Your task to perform on an android device: open app "LinkedIn" (install if not already installed), go to login, and select forgot password Image 0: 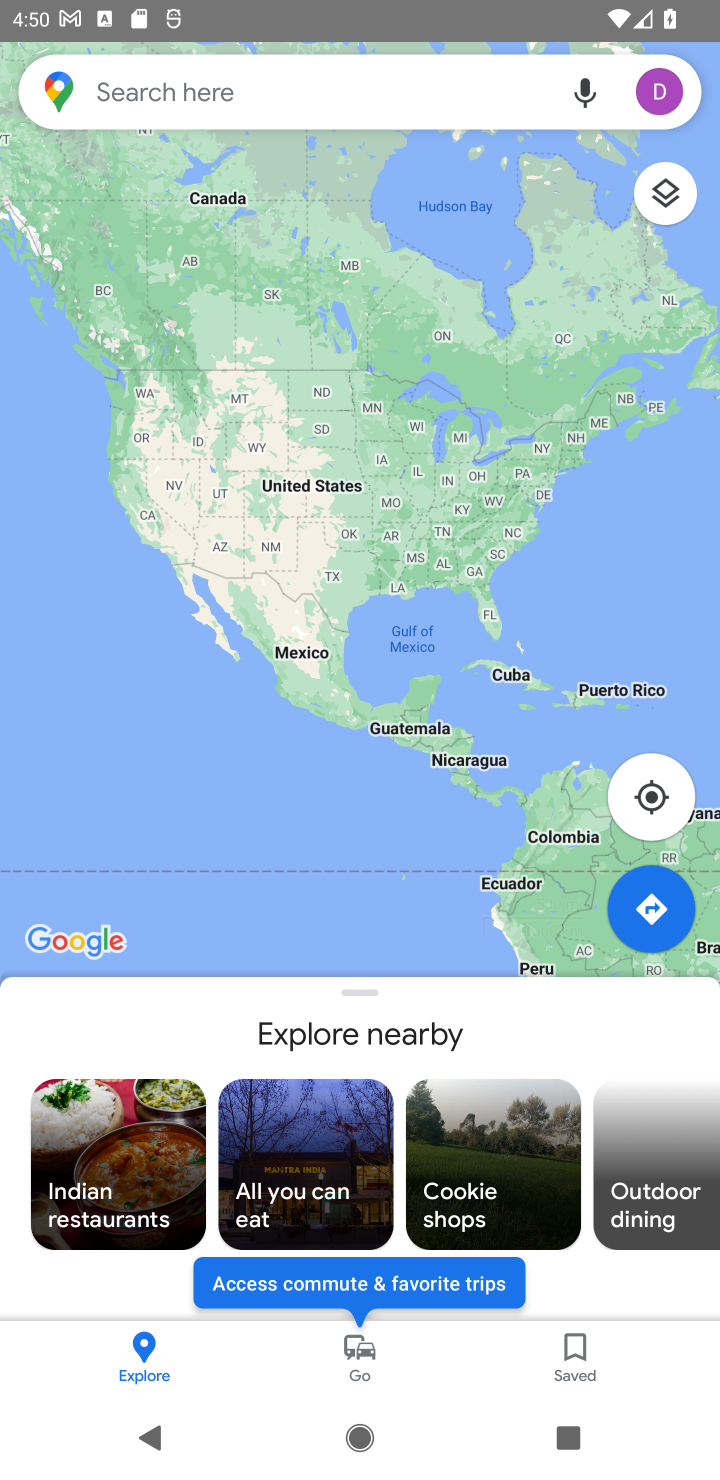
Step 0: press home button
Your task to perform on an android device: open app "LinkedIn" (install if not already installed), go to login, and select forgot password Image 1: 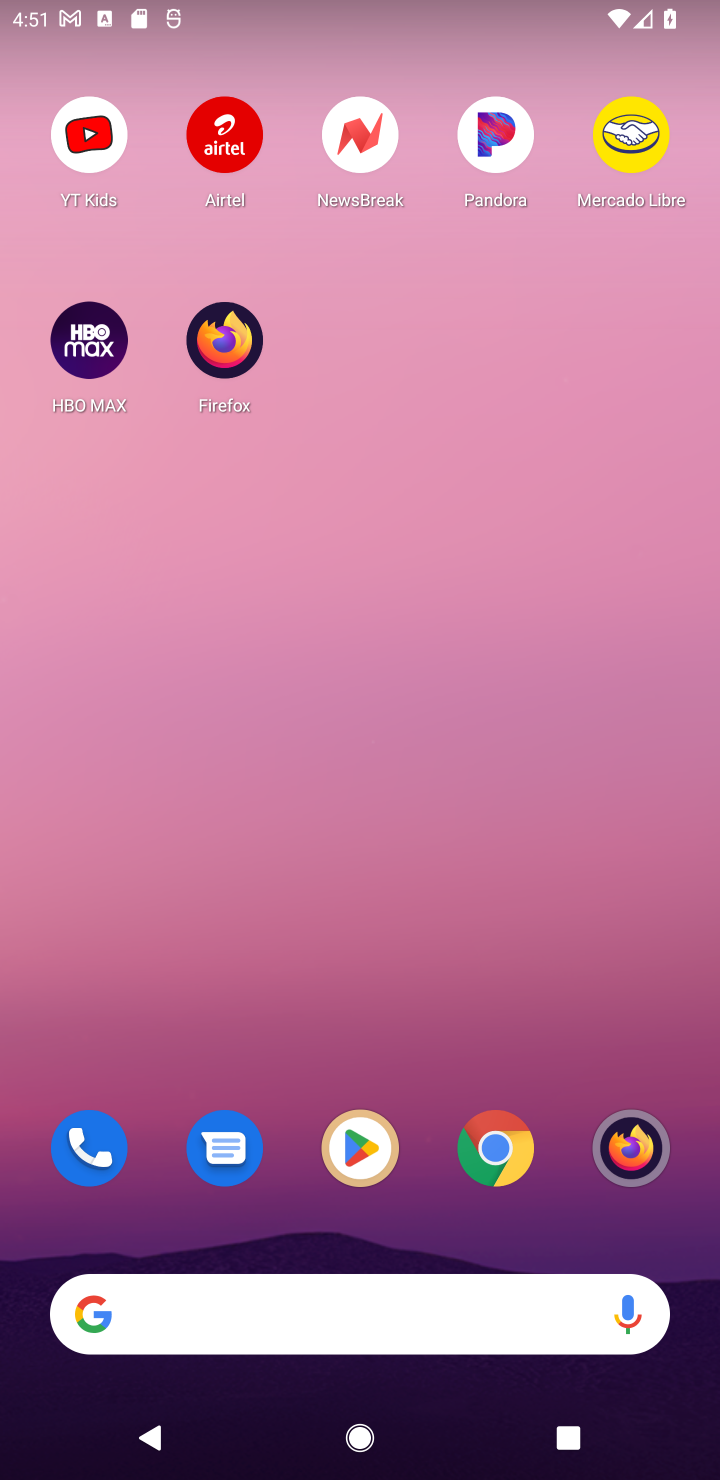
Step 1: click (361, 1149)
Your task to perform on an android device: open app "LinkedIn" (install if not already installed), go to login, and select forgot password Image 2: 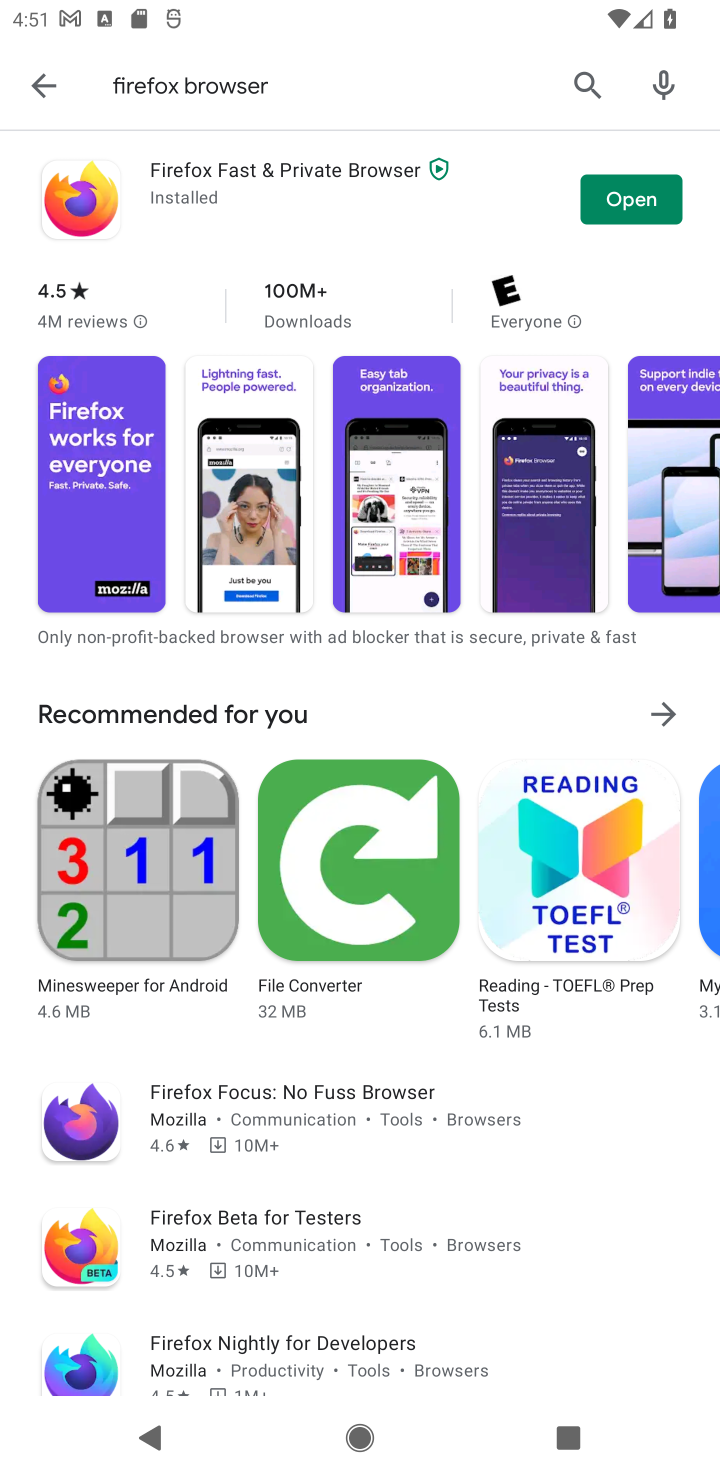
Step 2: click (590, 81)
Your task to perform on an android device: open app "LinkedIn" (install if not already installed), go to login, and select forgot password Image 3: 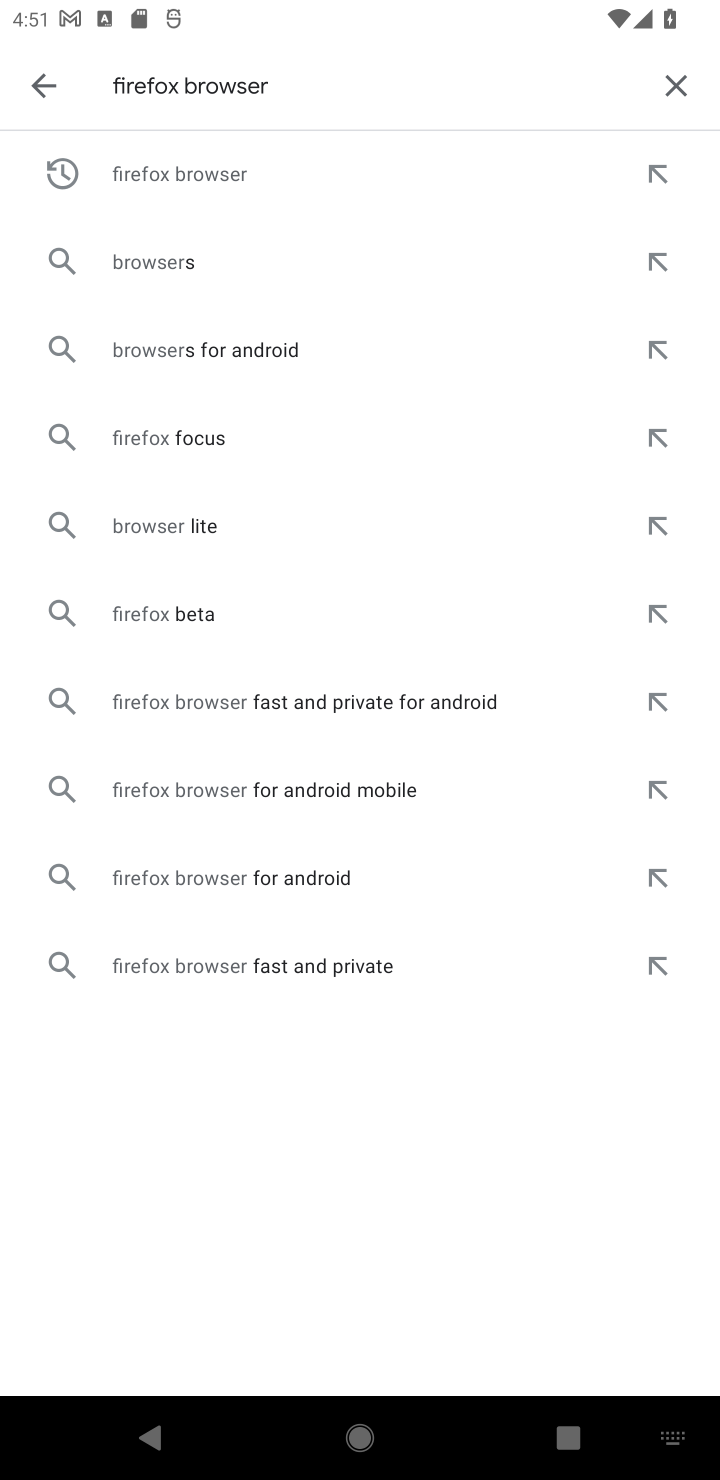
Step 3: click (672, 88)
Your task to perform on an android device: open app "LinkedIn" (install if not already installed), go to login, and select forgot password Image 4: 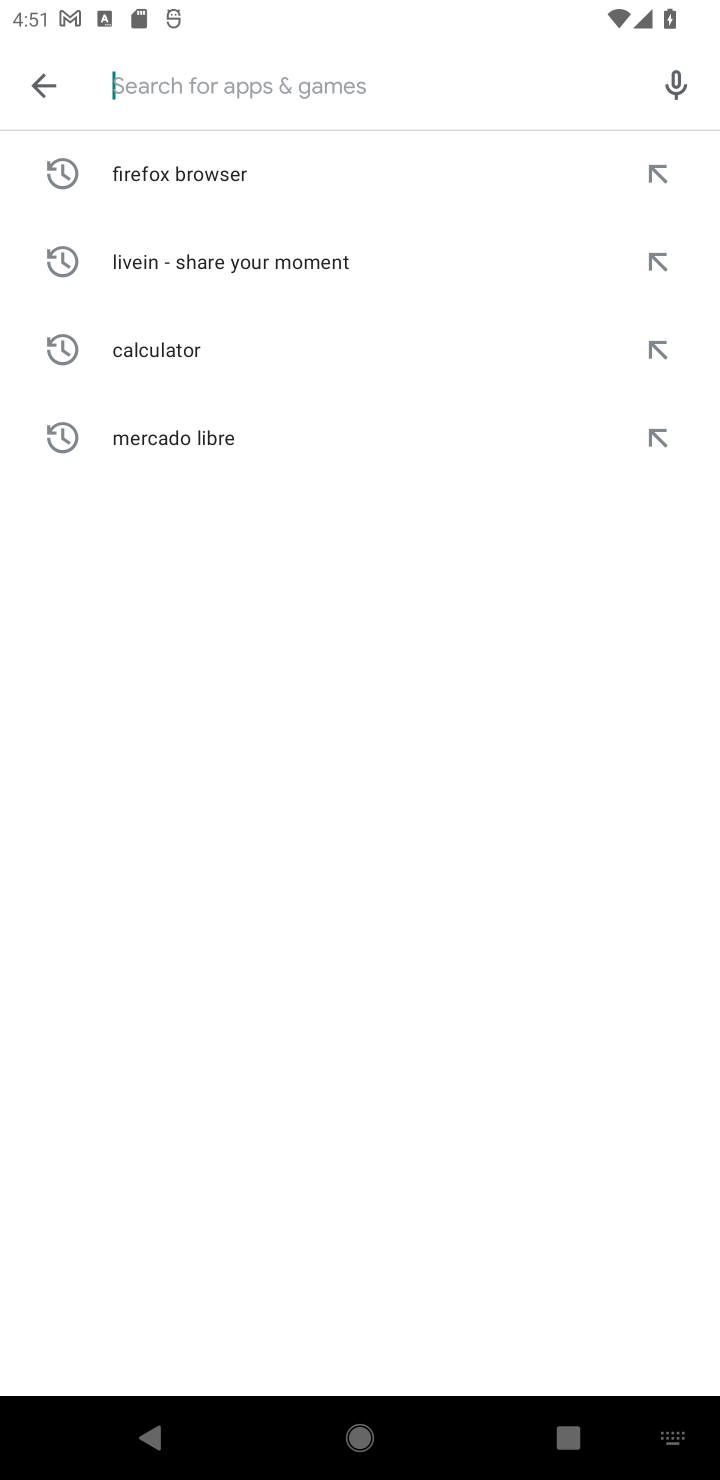
Step 4: type "LinkedIn"
Your task to perform on an android device: open app "LinkedIn" (install if not already installed), go to login, and select forgot password Image 5: 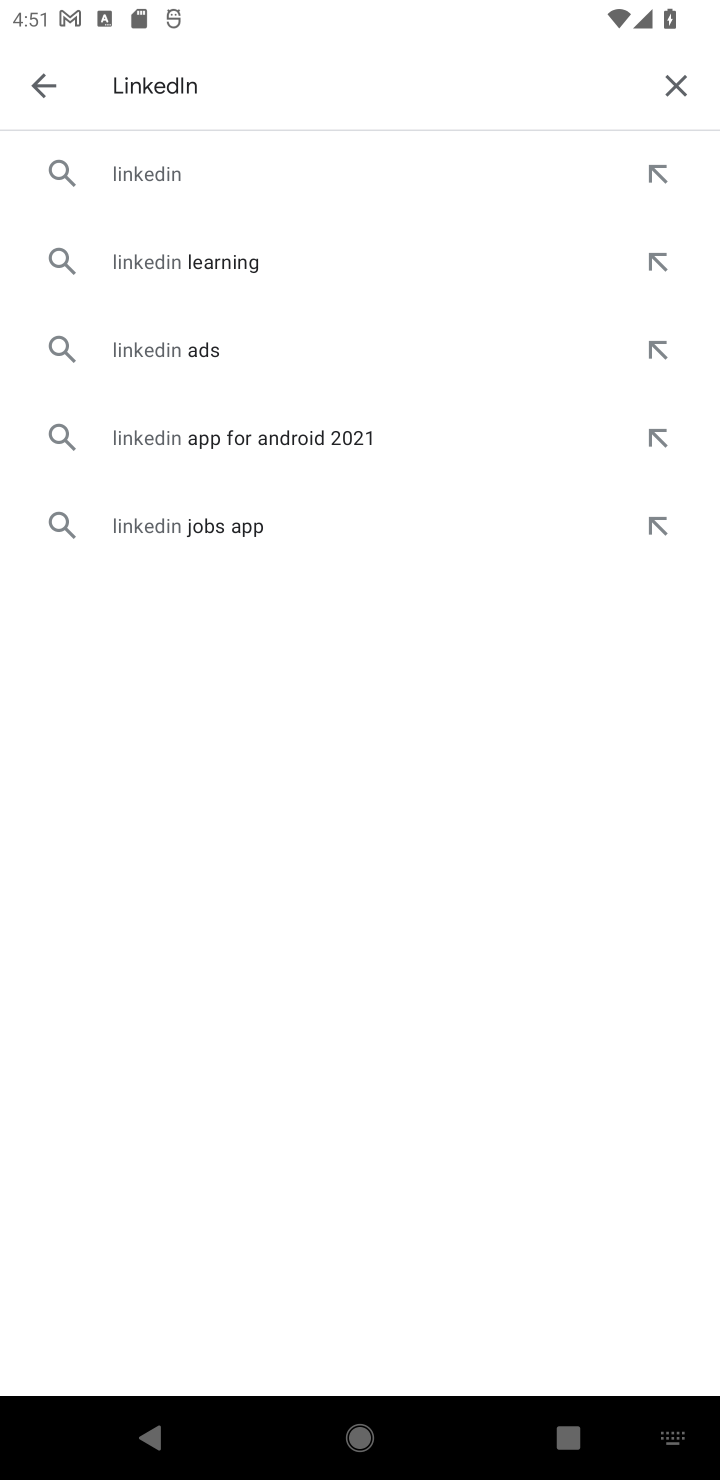
Step 5: click (163, 167)
Your task to perform on an android device: open app "LinkedIn" (install if not already installed), go to login, and select forgot password Image 6: 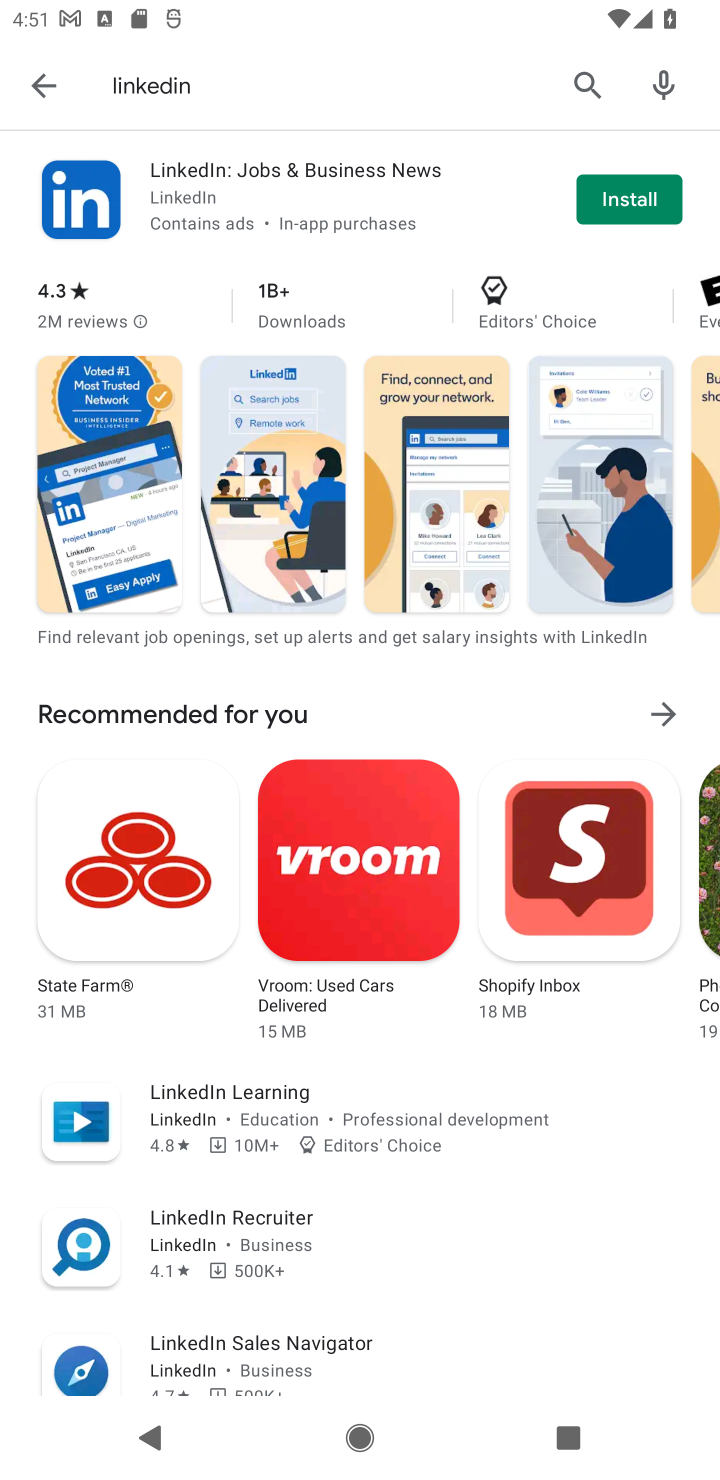
Step 6: click (630, 206)
Your task to perform on an android device: open app "LinkedIn" (install if not already installed), go to login, and select forgot password Image 7: 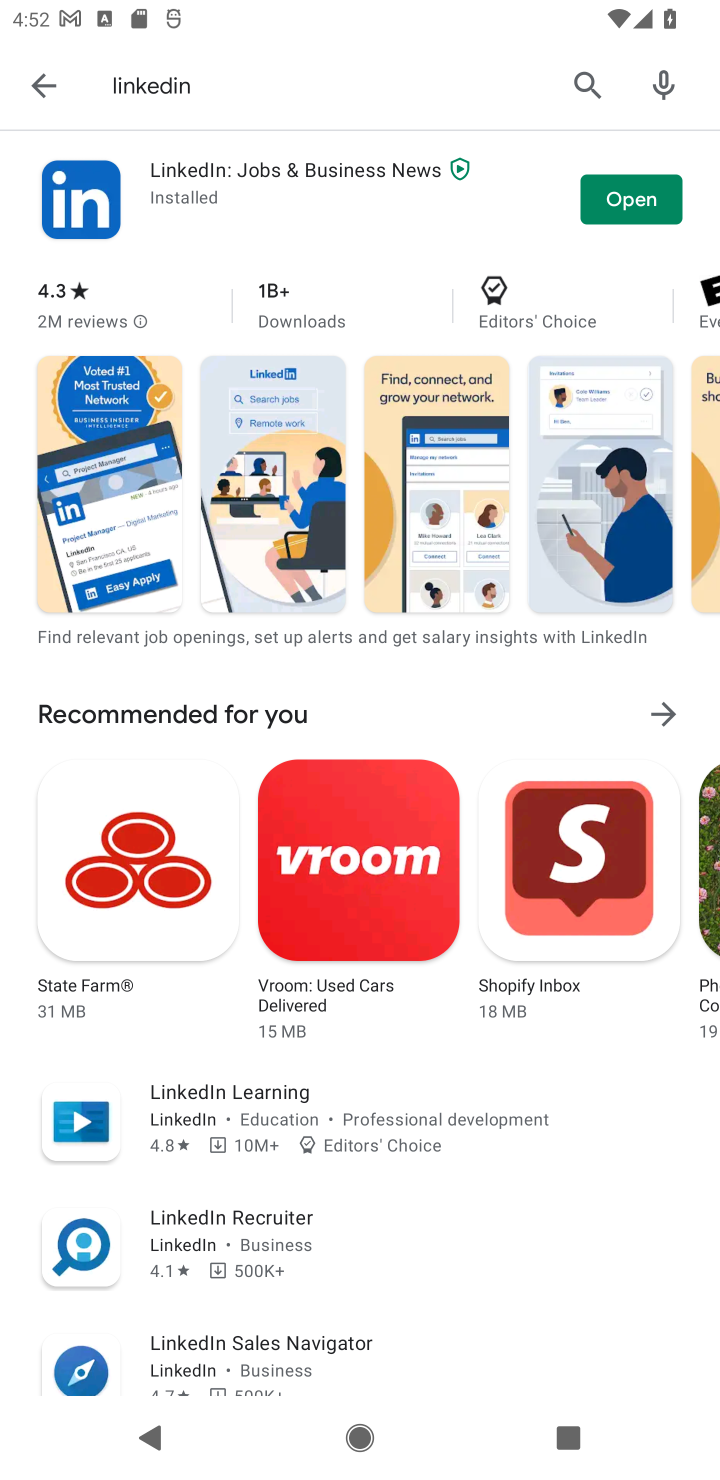
Step 7: click (630, 206)
Your task to perform on an android device: open app "LinkedIn" (install if not already installed), go to login, and select forgot password Image 8: 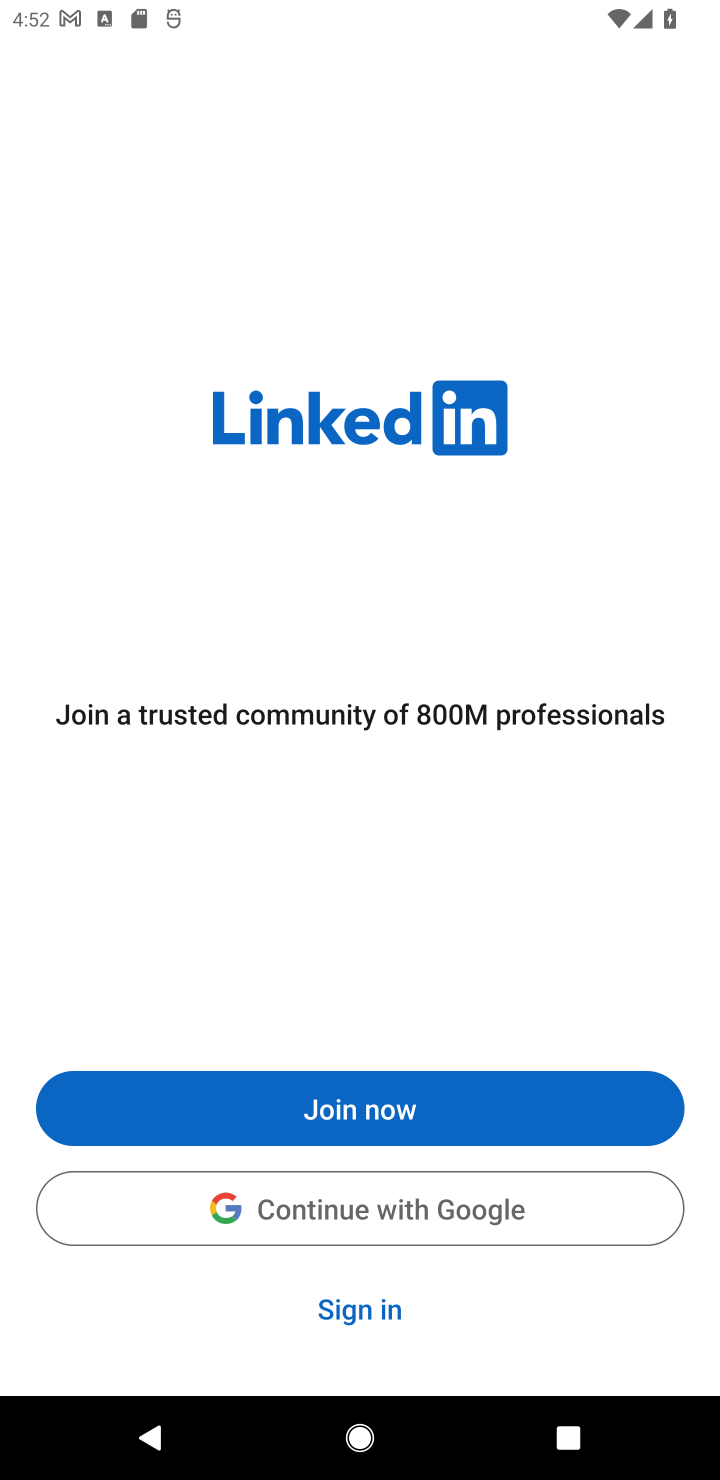
Step 8: click (345, 1304)
Your task to perform on an android device: open app "LinkedIn" (install if not already installed), go to login, and select forgot password Image 9: 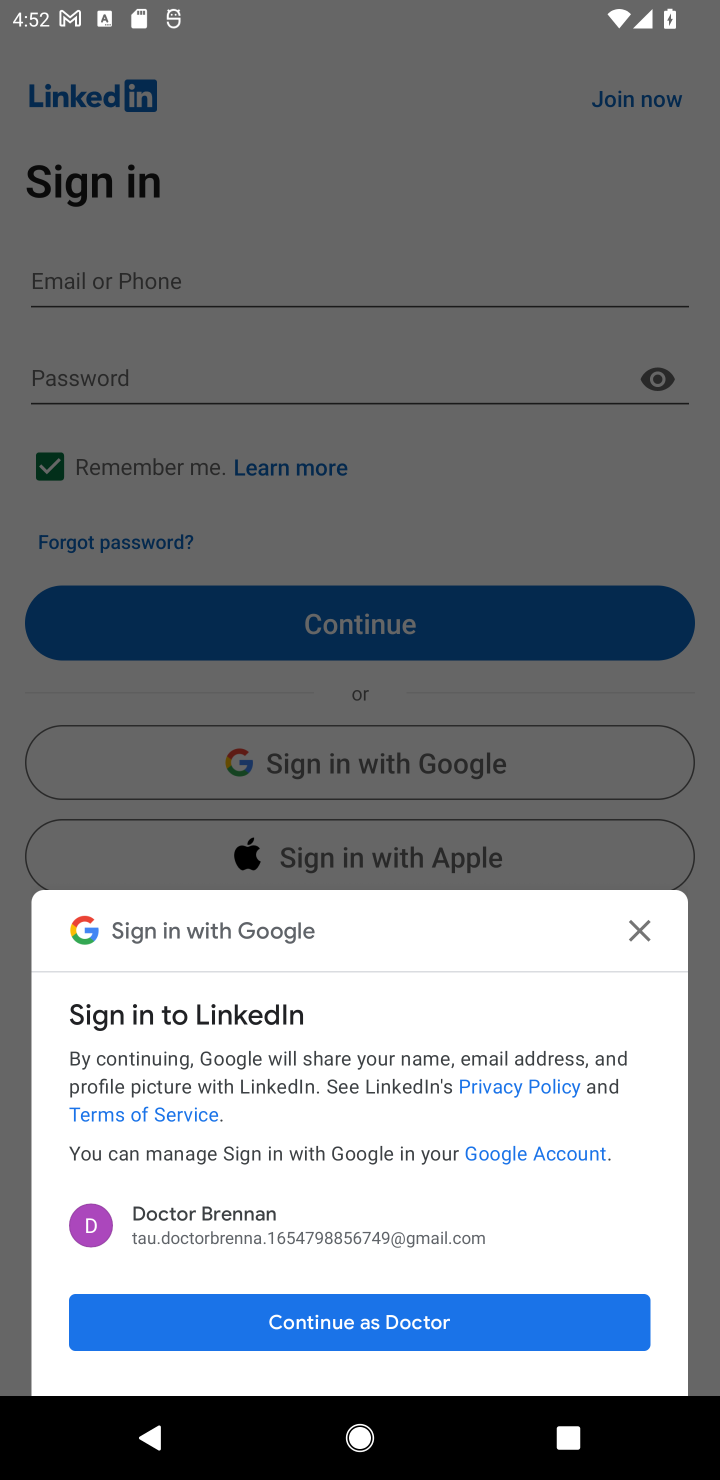
Step 9: click (636, 931)
Your task to perform on an android device: open app "LinkedIn" (install if not already installed), go to login, and select forgot password Image 10: 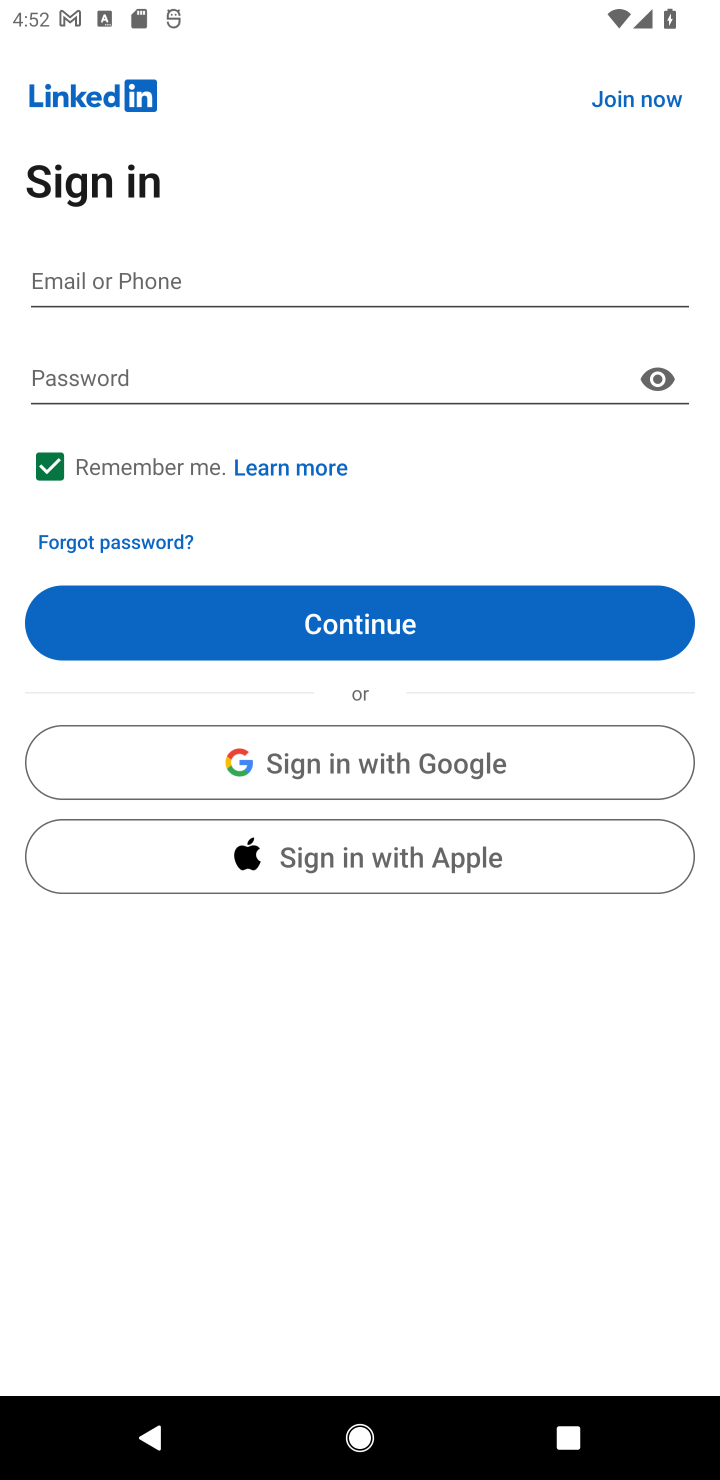
Step 10: click (132, 545)
Your task to perform on an android device: open app "LinkedIn" (install if not already installed), go to login, and select forgot password Image 11: 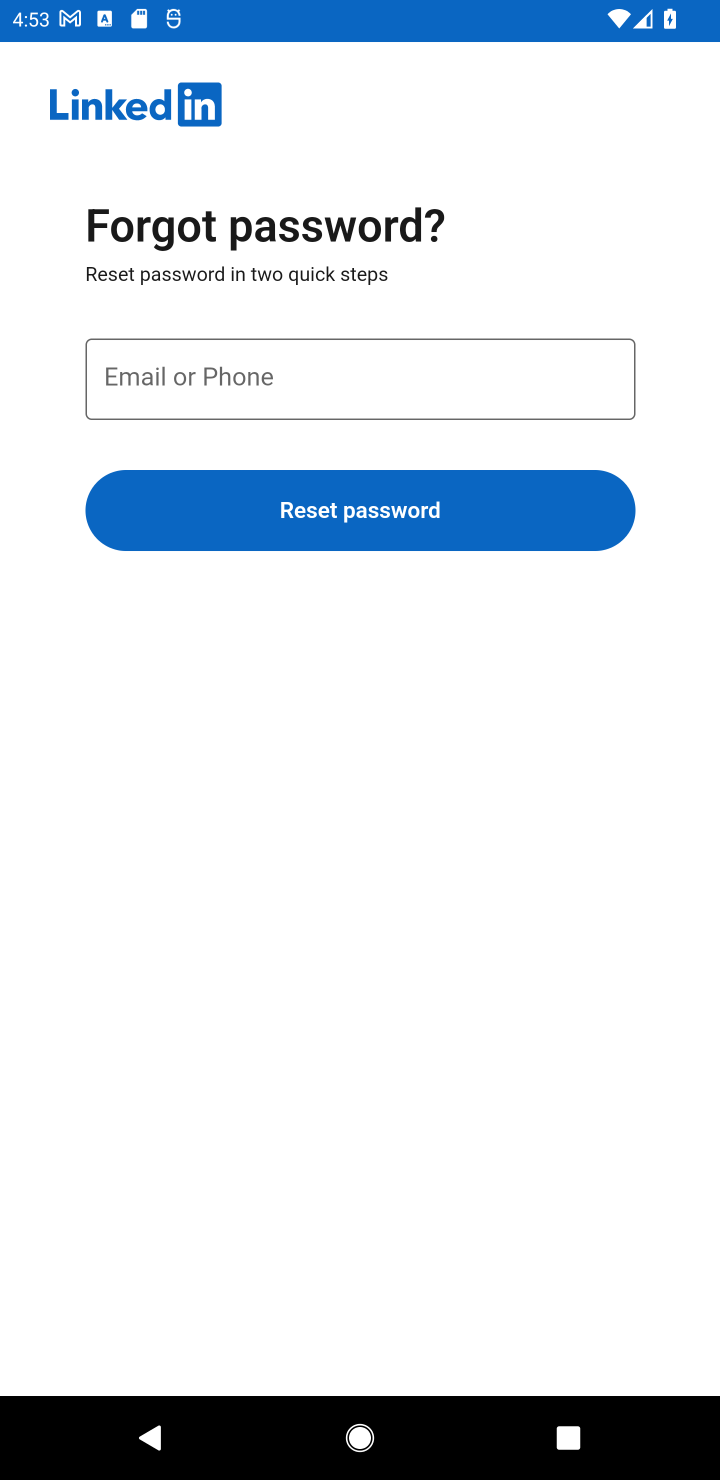
Step 11: task complete